Your task to perform on an android device: toggle priority inbox in the gmail app Image 0: 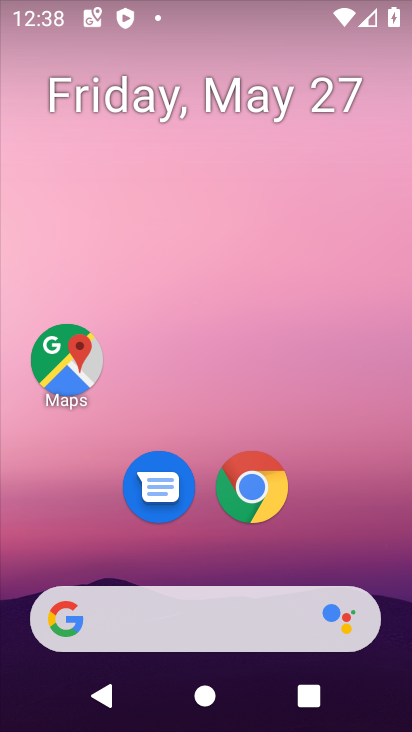
Step 0: drag from (308, 547) to (283, 83)
Your task to perform on an android device: toggle priority inbox in the gmail app Image 1: 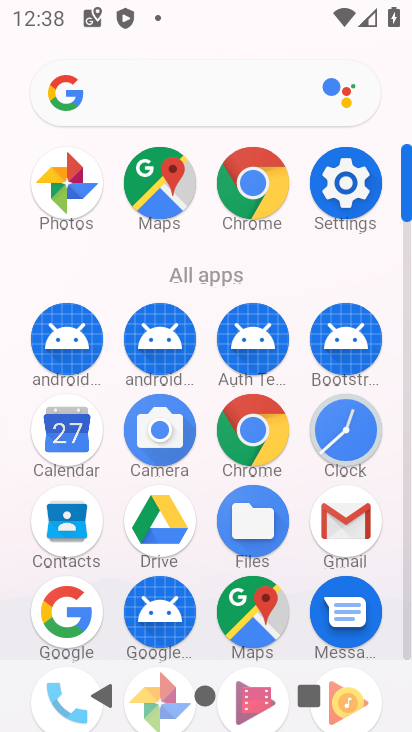
Step 1: click (352, 529)
Your task to perform on an android device: toggle priority inbox in the gmail app Image 2: 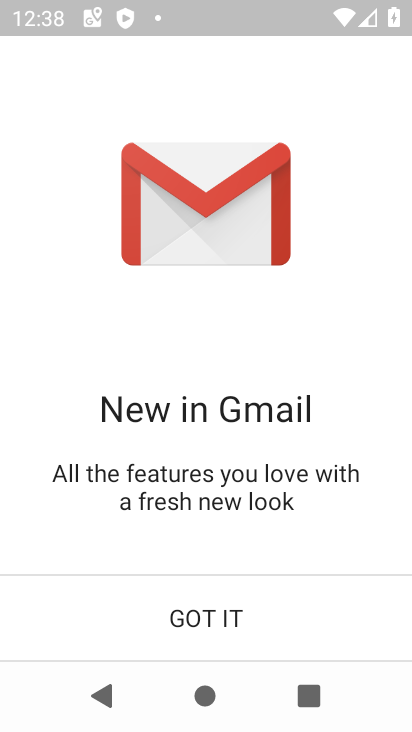
Step 2: click (217, 603)
Your task to perform on an android device: toggle priority inbox in the gmail app Image 3: 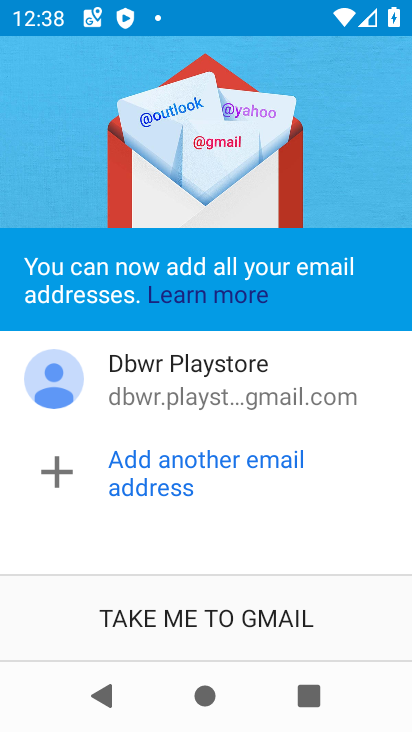
Step 3: click (192, 612)
Your task to perform on an android device: toggle priority inbox in the gmail app Image 4: 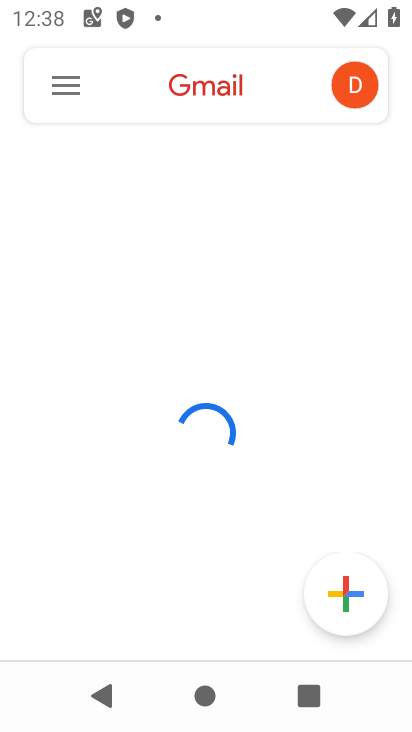
Step 4: click (63, 83)
Your task to perform on an android device: toggle priority inbox in the gmail app Image 5: 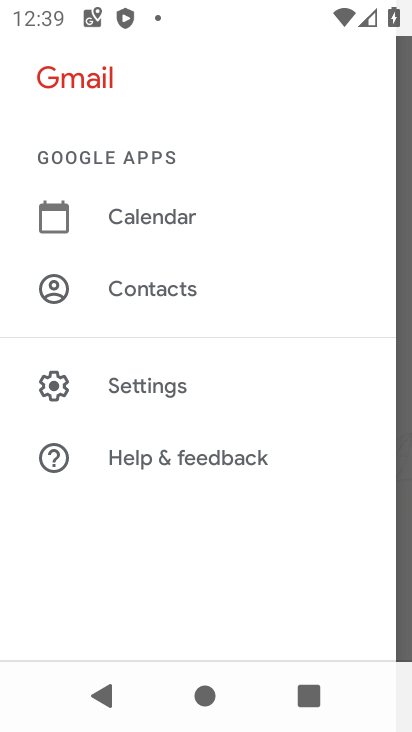
Step 5: click (167, 388)
Your task to perform on an android device: toggle priority inbox in the gmail app Image 6: 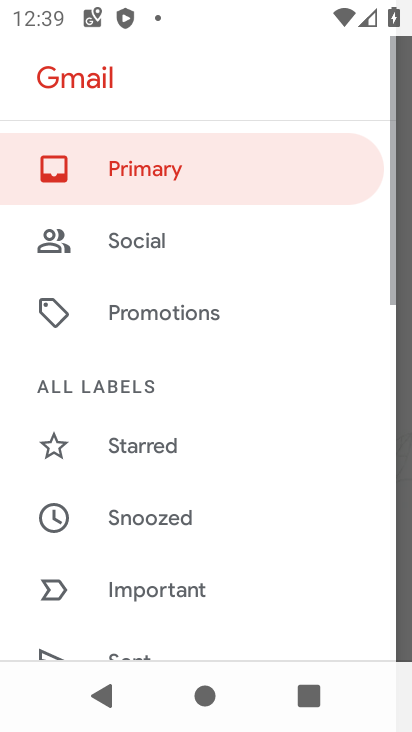
Step 6: drag from (214, 595) to (198, 177)
Your task to perform on an android device: toggle priority inbox in the gmail app Image 7: 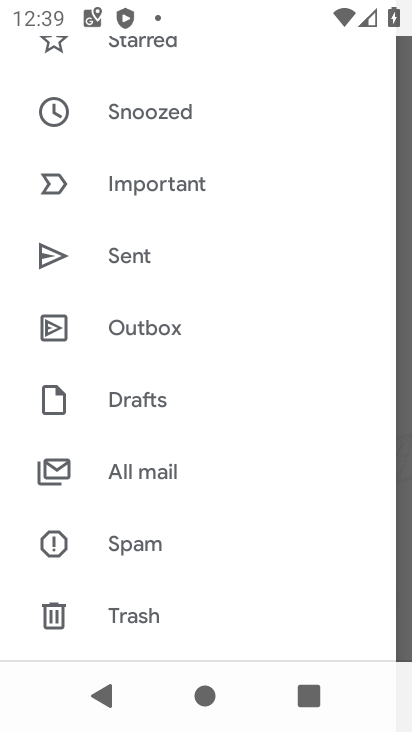
Step 7: drag from (227, 582) to (222, 270)
Your task to perform on an android device: toggle priority inbox in the gmail app Image 8: 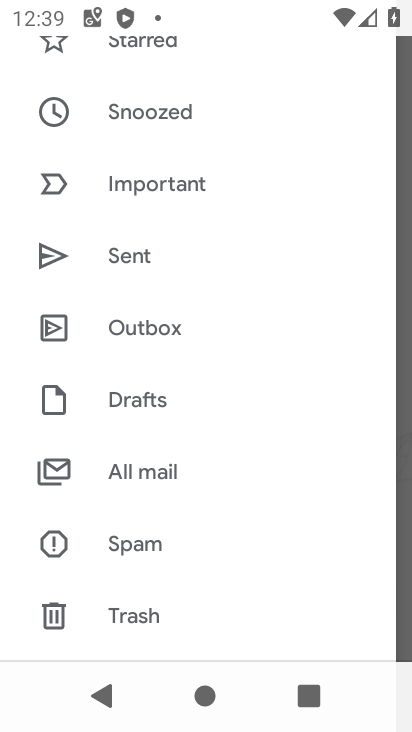
Step 8: drag from (236, 606) to (210, 243)
Your task to perform on an android device: toggle priority inbox in the gmail app Image 9: 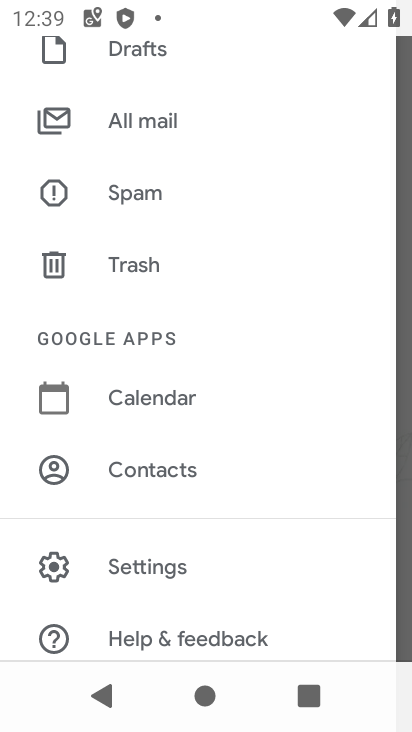
Step 9: click (195, 569)
Your task to perform on an android device: toggle priority inbox in the gmail app Image 10: 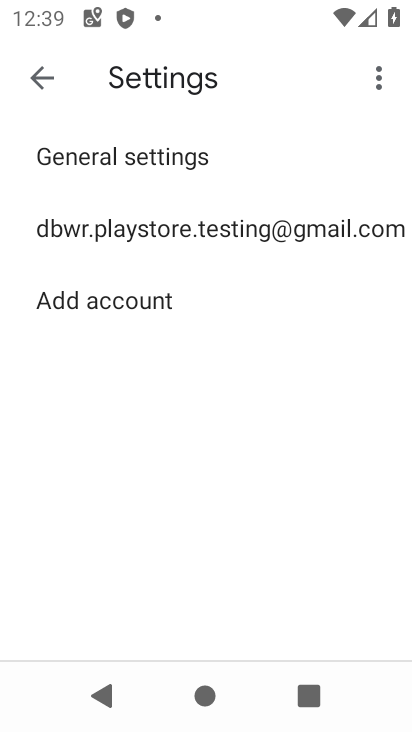
Step 10: click (140, 230)
Your task to perform on an android device: toggle priority inbox in the gmail app Image 11: 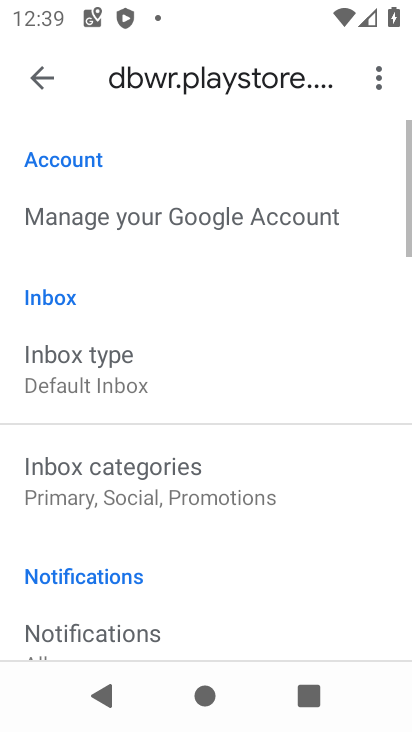
Step 11: click (139, 374)
Your task to perform on an android device: toggle priority inbox in the gmail app Image 12: 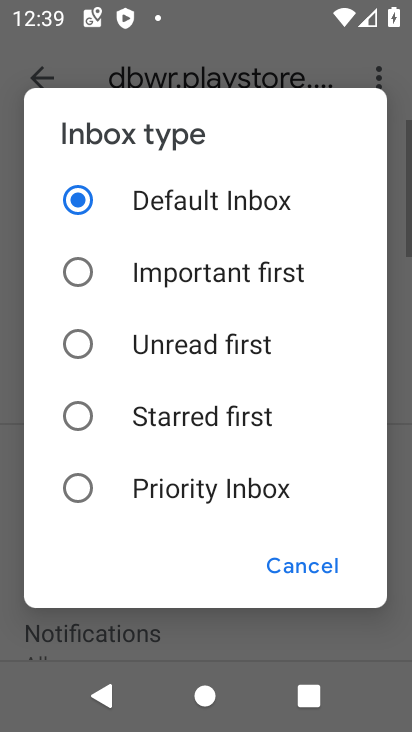
Step 12: click (77, 485)
Your task to perform on an android device: toggle priority inbox in the gmail app Image 13: 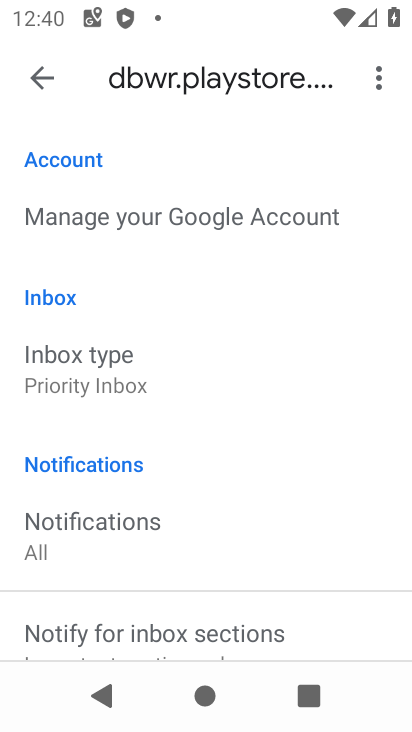
Step 13: task complete